Your task to perform on an android device: Check the weather Image 0: 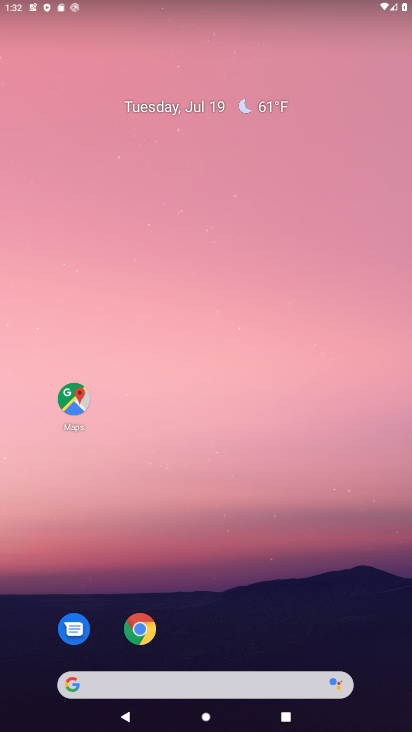
Step 0: click (259, 106)
Your task to perform on an android device: Check the weather Image 1: 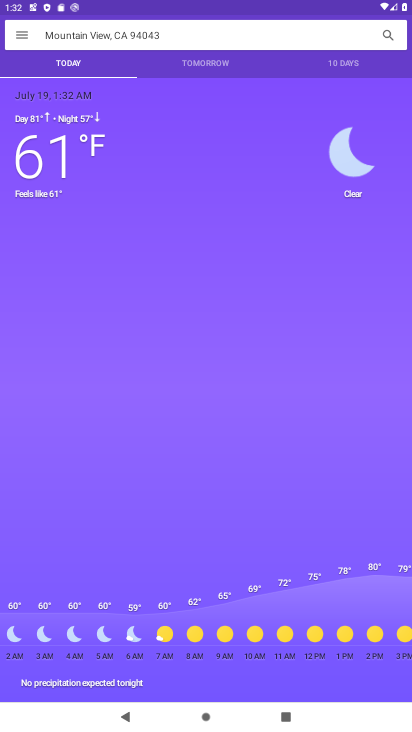
Step 1: task complete